Your task to perform on an android device: find snoozed emails in the gmail app Image 0: 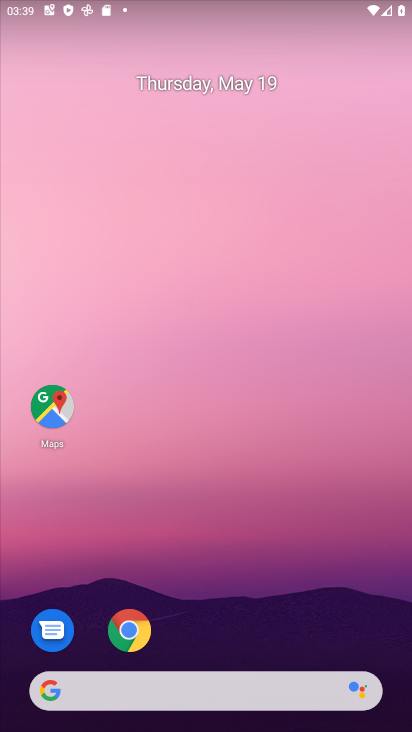
Step 0: drag from (385, 645) to (310, 44)
Your task to perform on an android device: find snoozed emails in the gmail app Image 1: 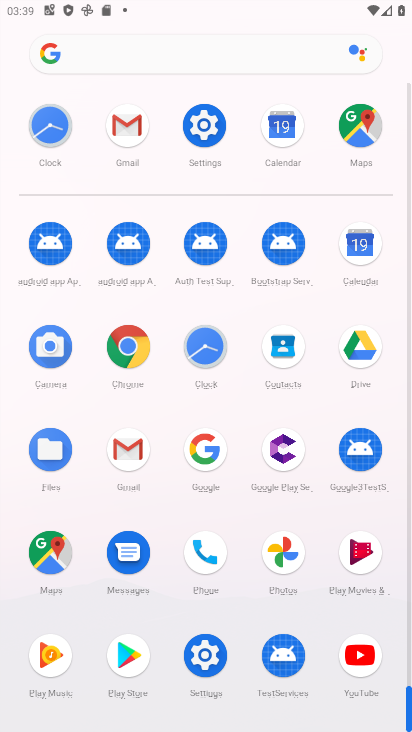
Step 1: click (126, 447)
Your task to perform on an android device: find snoozed emails in the gmail app Image 2: 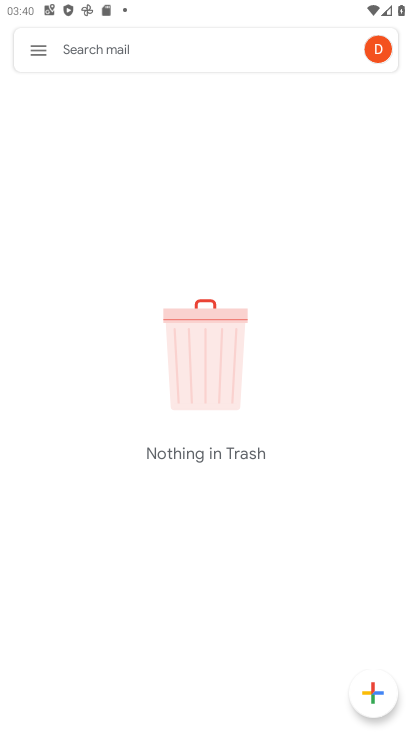
Step 2: click (36, 48)
Your task to perform on an android device: find snoozed emails in the gmail app Image 3: 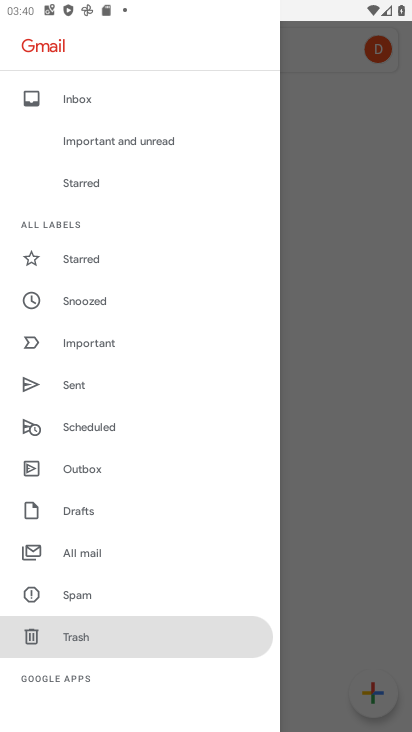
Step 3: click (76, 300)
Your task to perform on an android device: find snoozed emails in the gmail app Image 4: 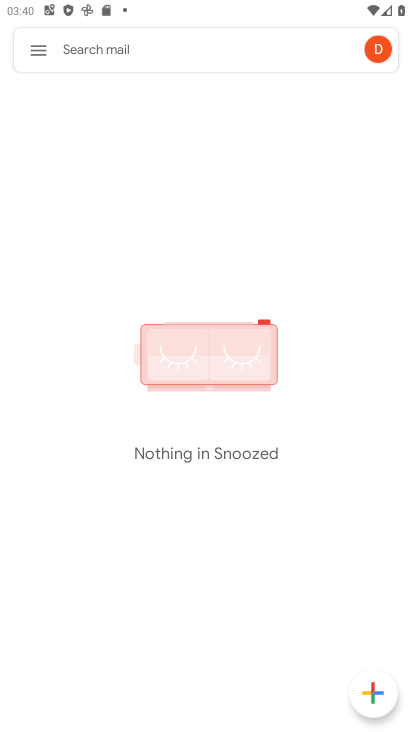
Step 4: task complete